Your task to perform on an android device: open app "Duolingo: language lessons" Image 0: 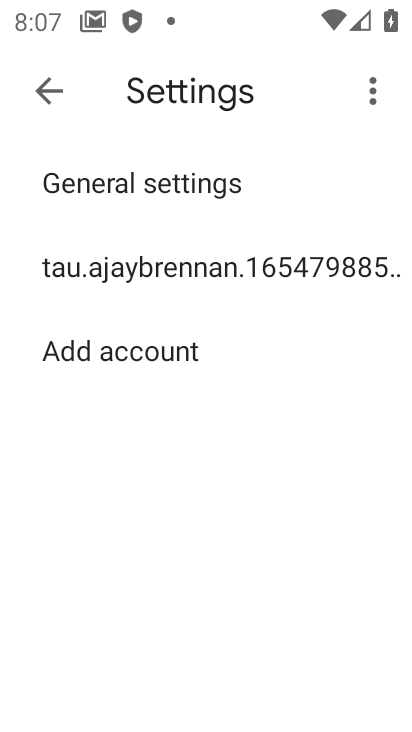
Step 0: press home button
Your task to perform on an android device: open app "Duolingo: language lessons" Image 1: 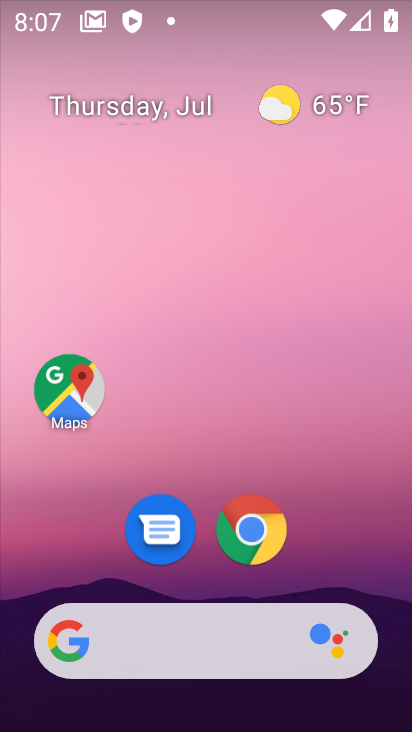
Step 1: drag from (320, 527) to (312, 9)
Your task to perform on an android device: open app "Duolingo: language lessons" Image 2: 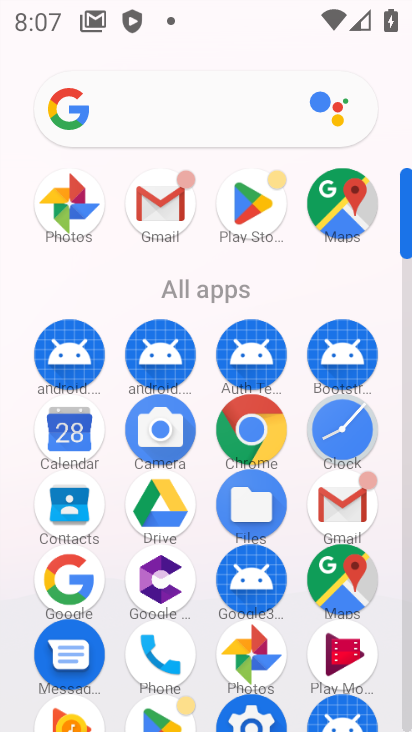
Step 2: click (241, 205)
Your task to perform on an android device: open app "Duolingo: language lessons" Image 3: 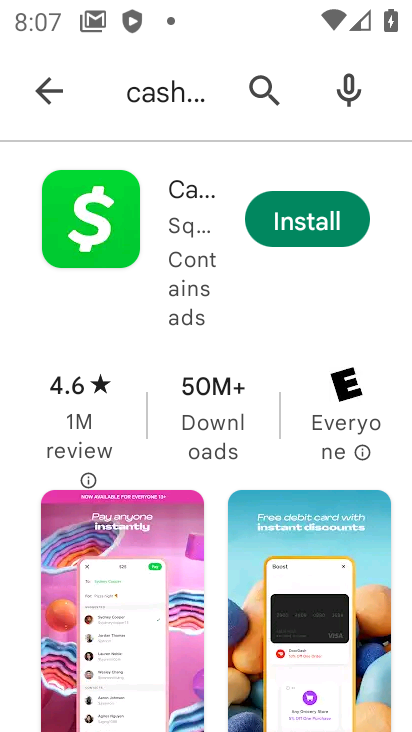
Step 3: click (260, 89)
Your task to perform on an android device: open app "Duolingo: language lessons" Image 4: 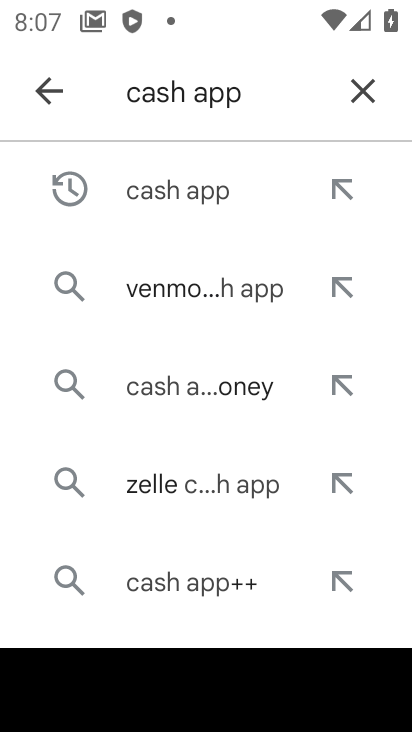
Step 4: click (353, 92)
Your task to perform on an android device: open app "Duolingo: language lessons" Image 5: 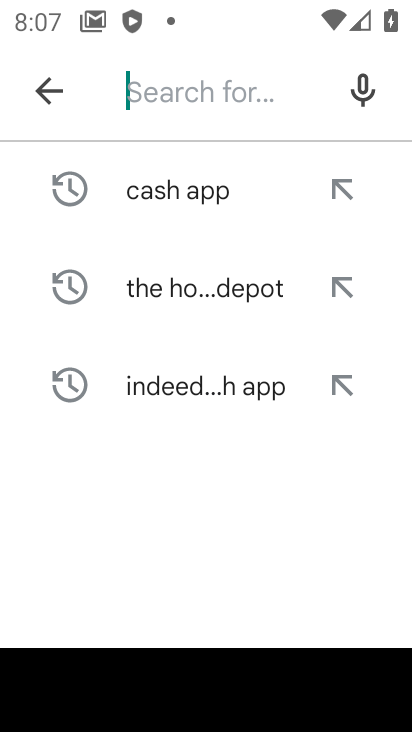
Step 5: click (191, 100)
Your task to perform on an android device: open app "Duolingo: language lessons" Image 6: 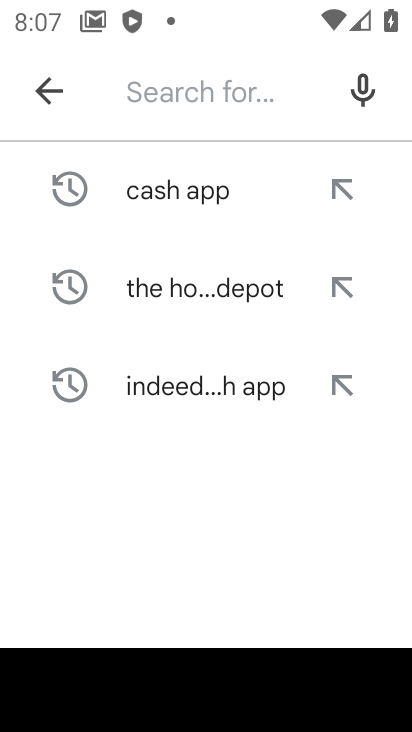
Step 6: type "Duolingo: language lessons"
Your task to perform on an android device: open app "Duolingo: language lessons" Image 7: 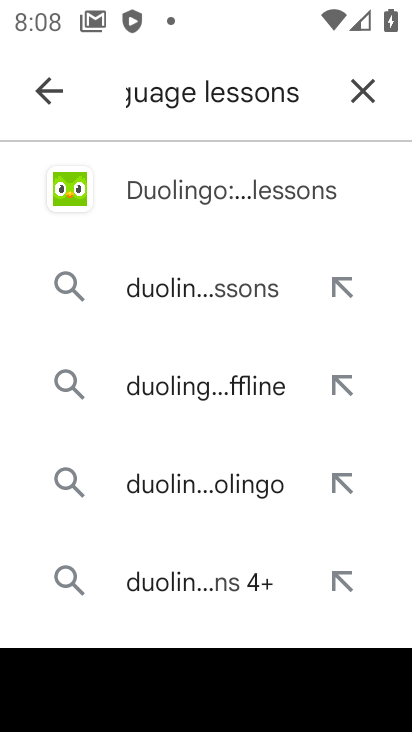
Step 7: click (200, 198)
Your task to perform on an android device: open app "Duolingo: language lessons" Image 8: 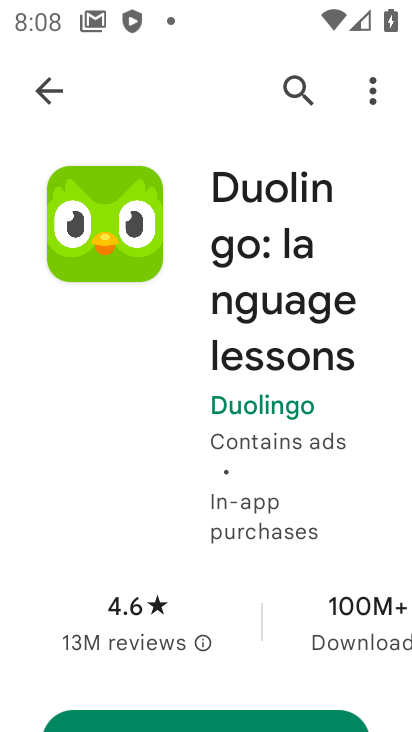
Step 8: task complete